Your task to perform on an android device: open chrome privacy settings Image 0: 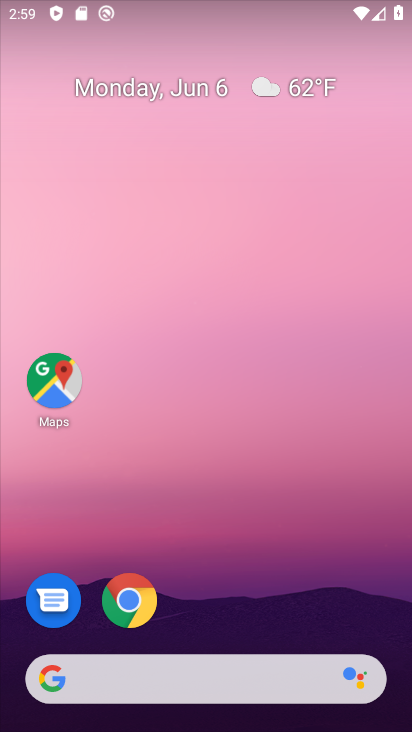
Step 0: drag from (245, 598) to (217, 77)
Your task to perform on an android device: open chrome privacy settings Image 1: 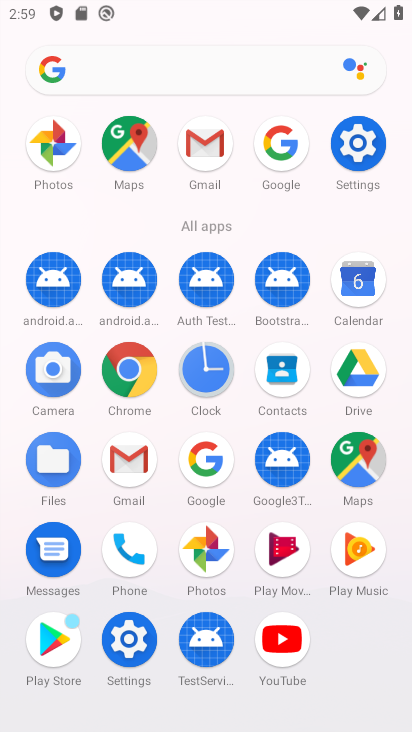
Step 1: click (129, 367)
Your task to perform on an android device: open chrome privacy settings Image 2: 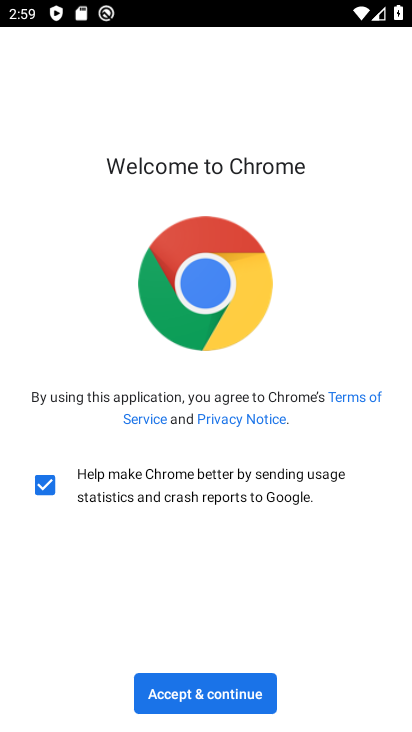
Step 2: click (200, 694)
Your task to perform on an android device: open chrome privacy settings Image 3: 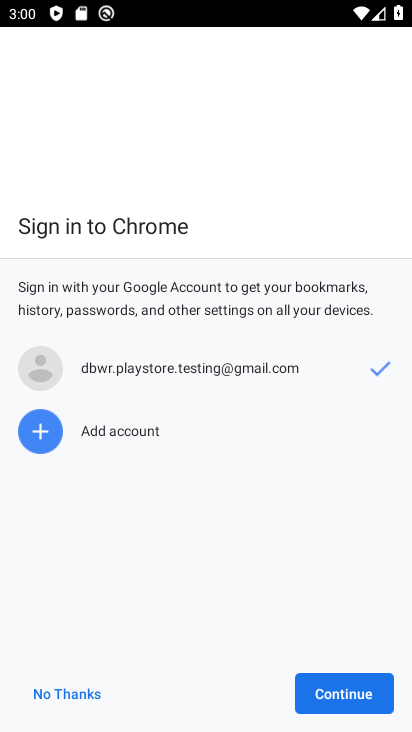
Step 3: click (338, 692)
Your task to perform on an android device: open chrome privacy settings Image 4: 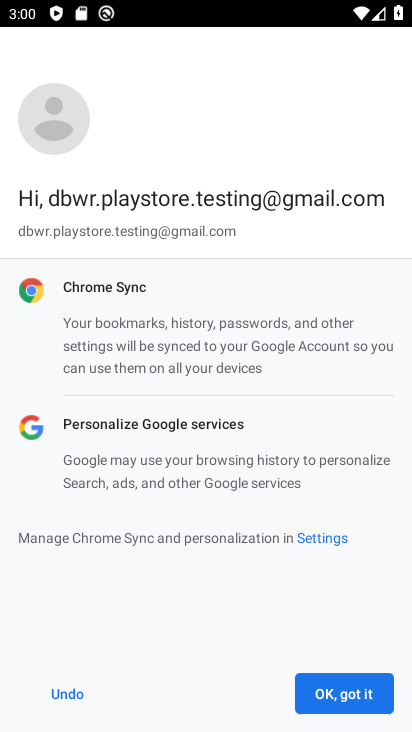
Step 4: click (338, 692)
Your task to perform on an android device: open chrome privacy settings Image 5: 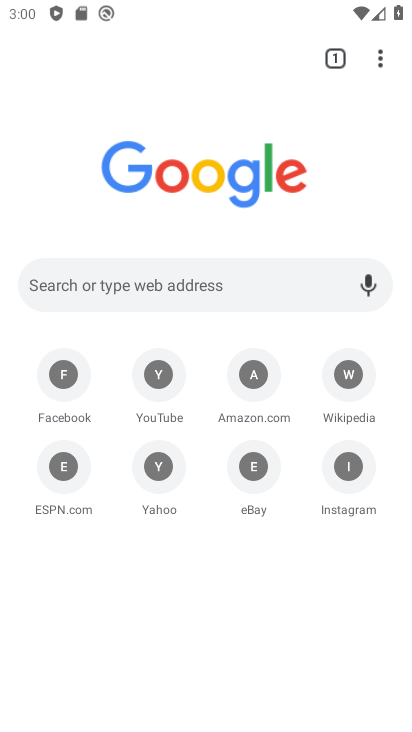
Step 5: click (378, 59)
Your task to perform on an android device: open chrome privacy settings Image 6: 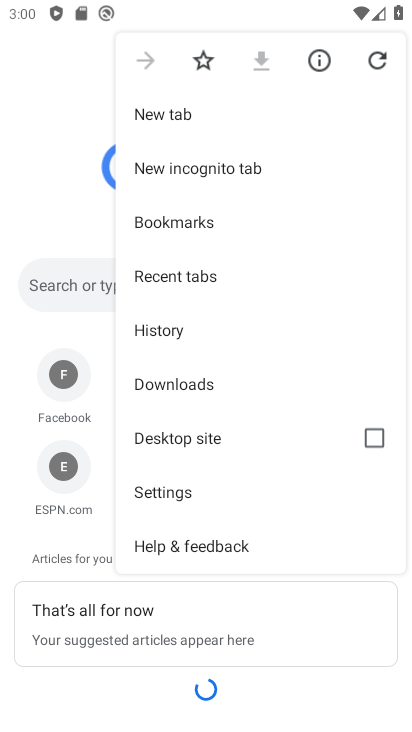
Step 6: click (175, 498)
Your task to perform on an android device: open chrome privacy settings Image 7: 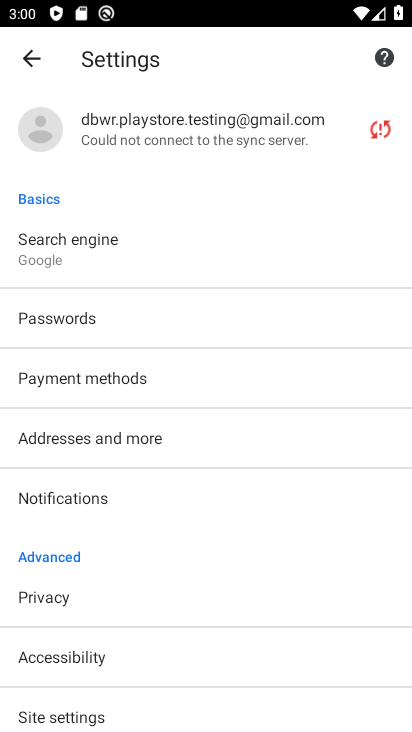
Step 7: click (60, 603)
Your task to perform on an android device: open chrome privacy settings Image 8: 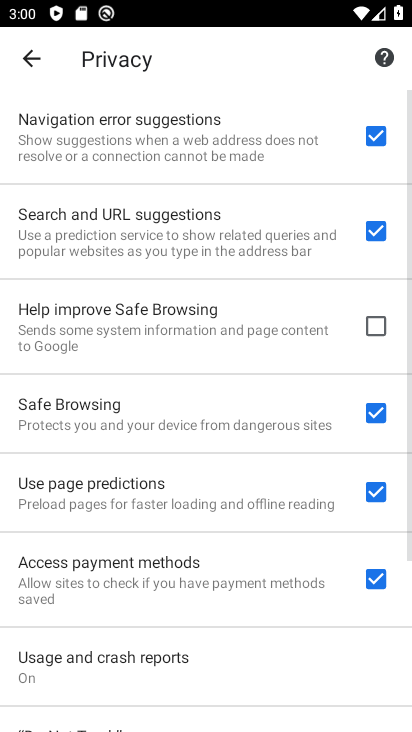
Step 8: task complete